Your task to perform on an android device: Clear the shopping cart on amazon.com. Image 0: 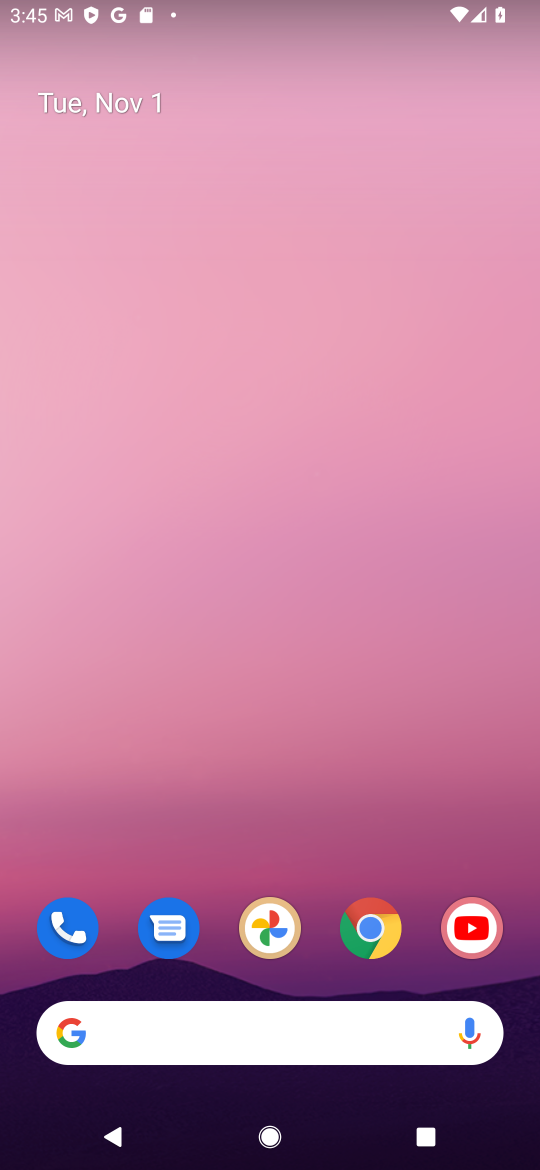
Step 0: click (375, 940)
Your task to perform on an android device: Clear the shopping cart on amazon.com. Image 1: 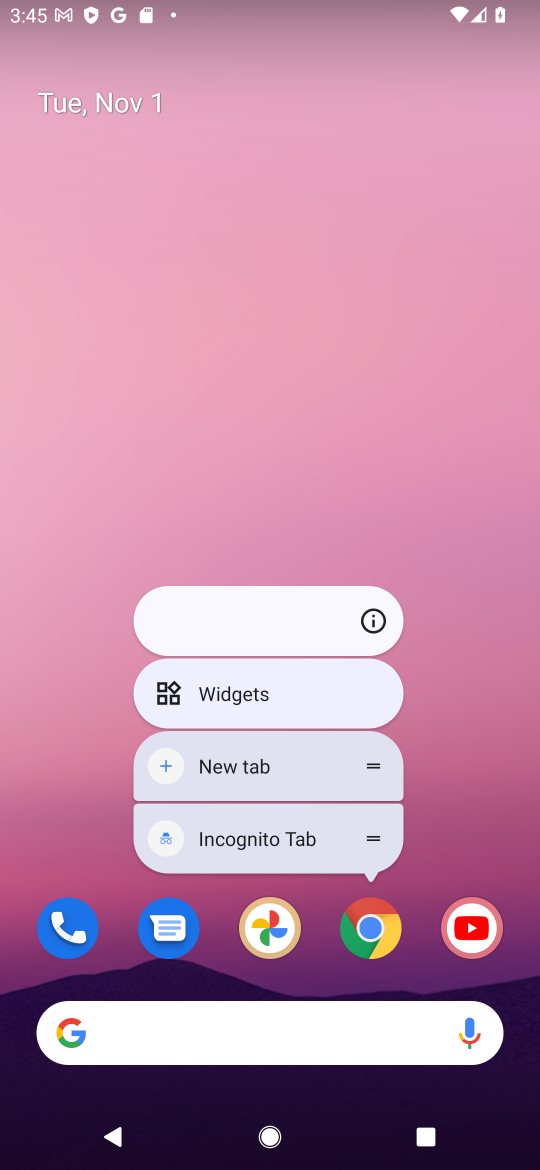
Step 1: click (373, 941)
Your task to perform on an android device: Clear the shopping cart on amazon.com. Image 2: 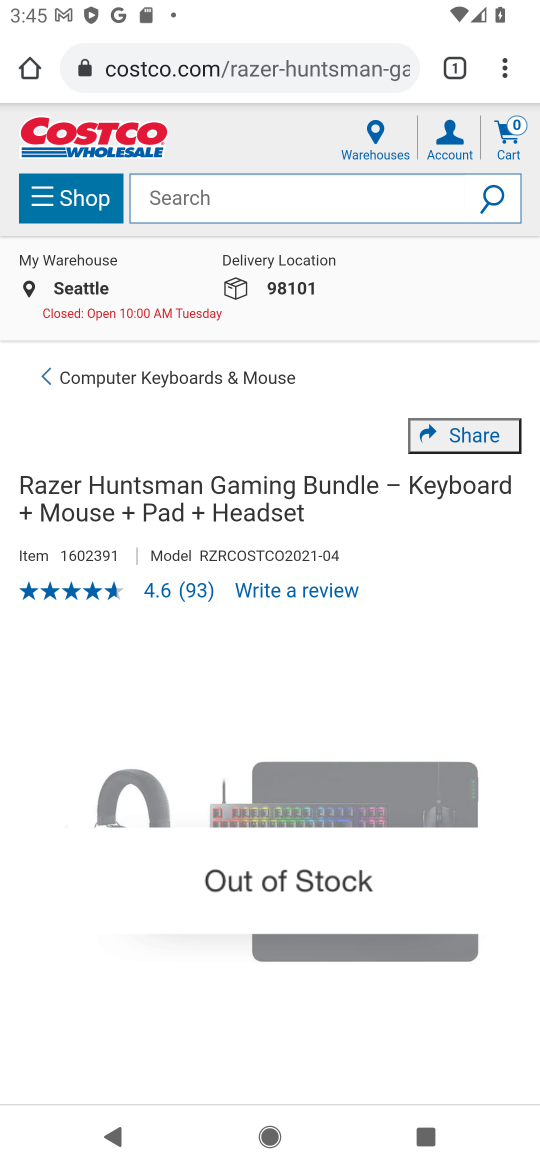
Step 2: click (265, 72)
Your task to perform on an android device: Clear the shopping cart on amazon.com. Image 3: 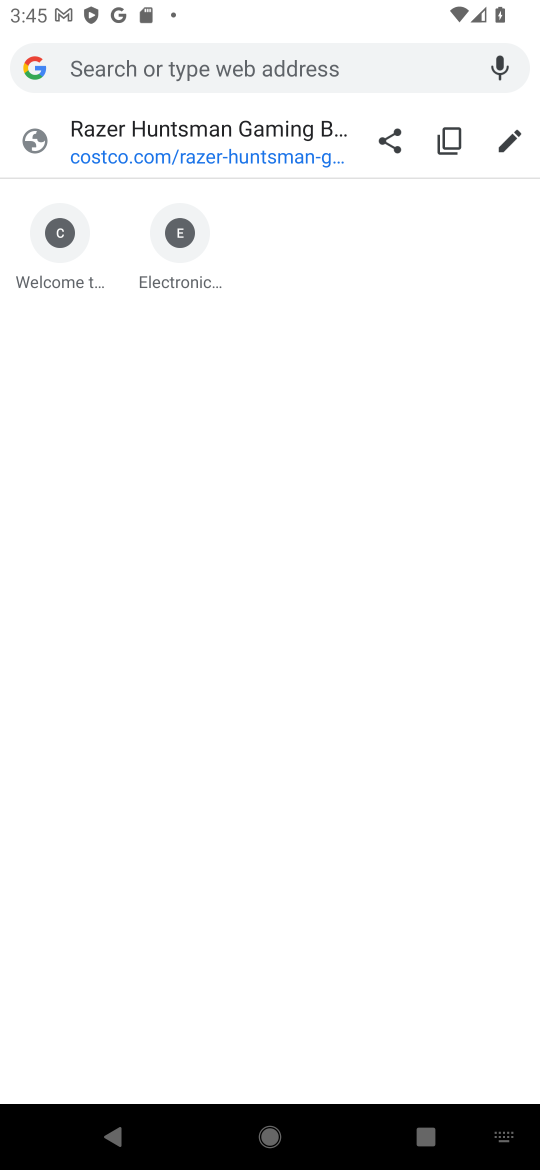
Step 3: type "amazon.com"
Your task to perform on an android device: Clear the shopping cart on amazon.com. Image 4: 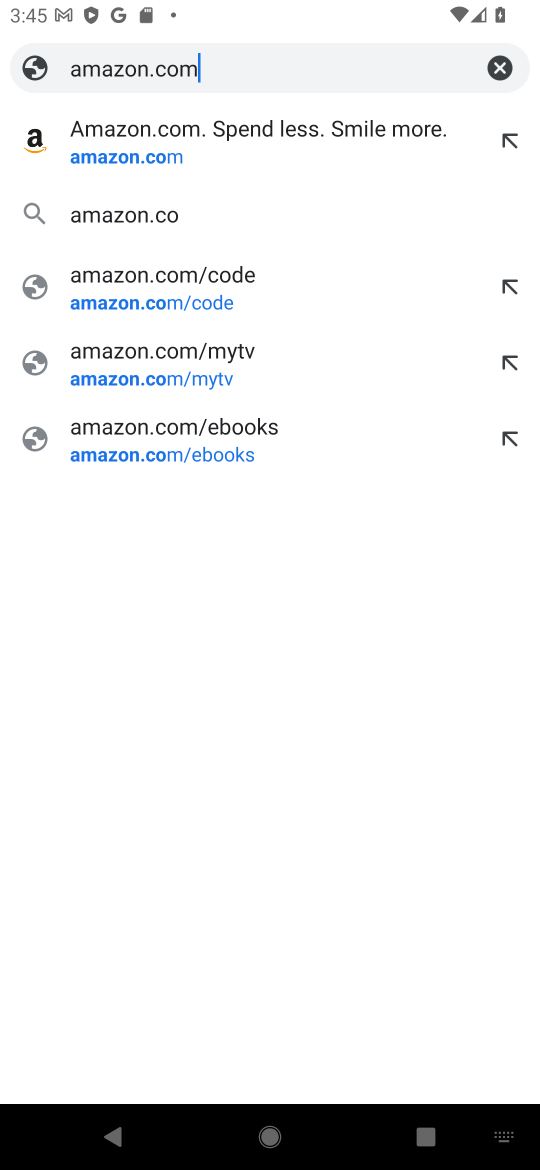
Step 4: type ""
Your task to perform on an android device: Clear the shopping cart on amazon.com. Image 5: 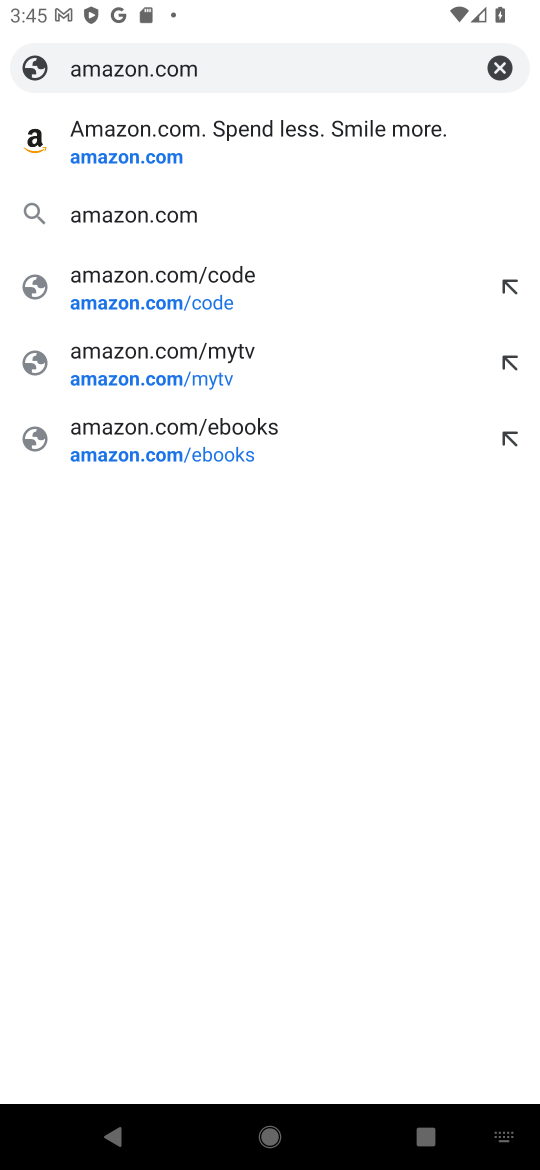
Step 5: press enter
Your task to perform on an android device: Clear the shopping cart on amazon.com. Image 6: 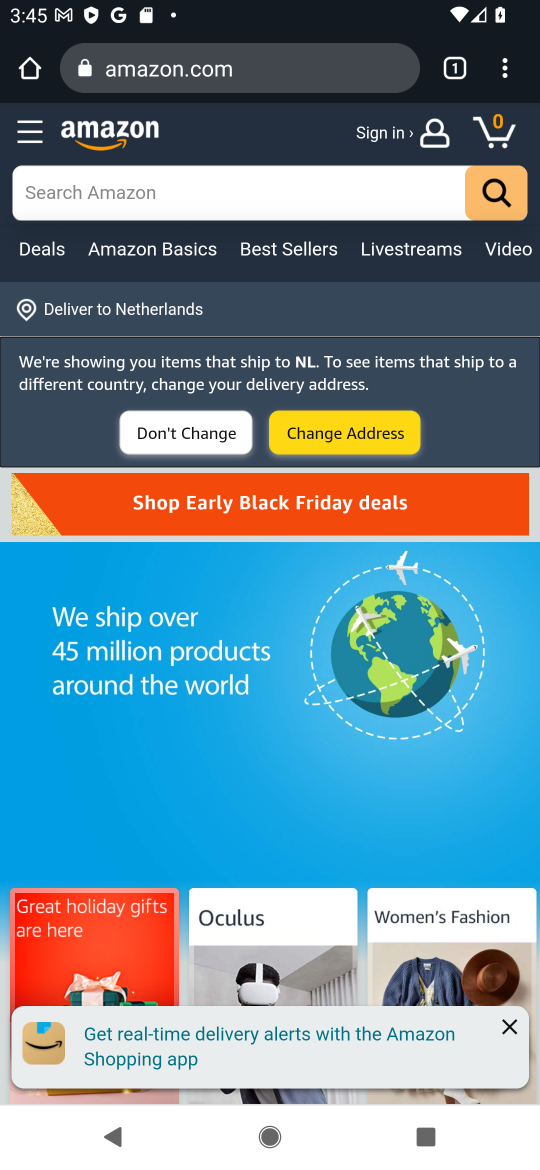
Step 6: click (509, 140)
Your task to perform on an android device: Clear the shopping cart on amazon.com. Image 7: 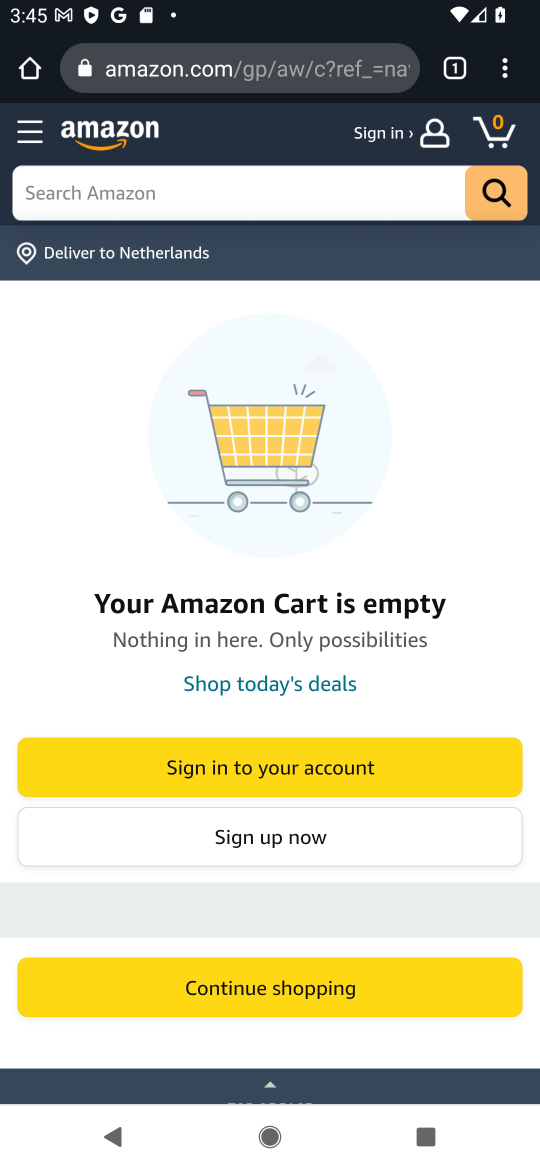
Step 7: task complete